Your task to perform on an android device: choose inbox layout in the gmail app Image 0: 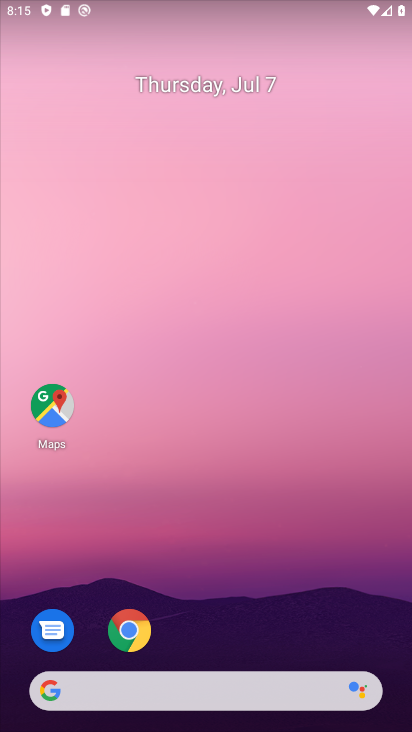
Step 0: drag from (200, 621) to (187, 149)
Your task to perform on an android device: choose inbox layout in the gmail app Image 1: 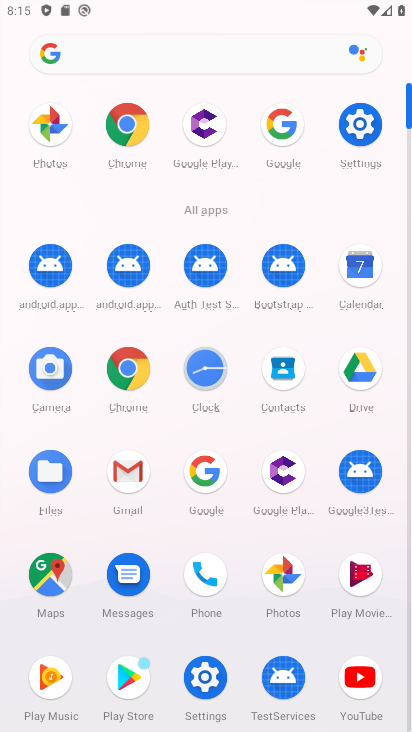
Step 1: click (137, 483)
Your task to perform on an android device: choose inbox layout in the gmail app Image 2: 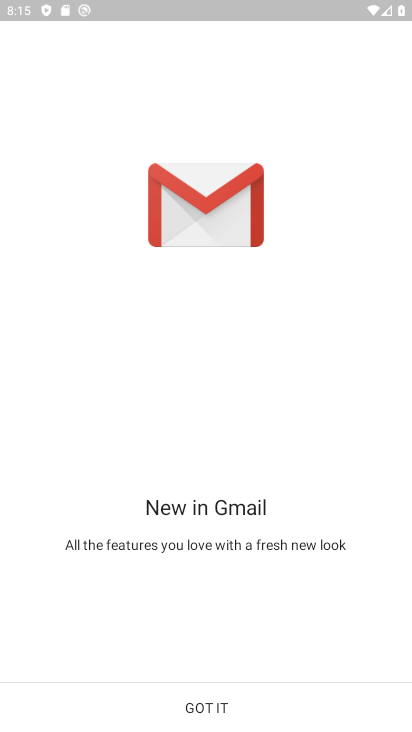
Step 2: click (212, 703)
Your task to perform on an android device: choose inbox layout in the gmail app Image 3: 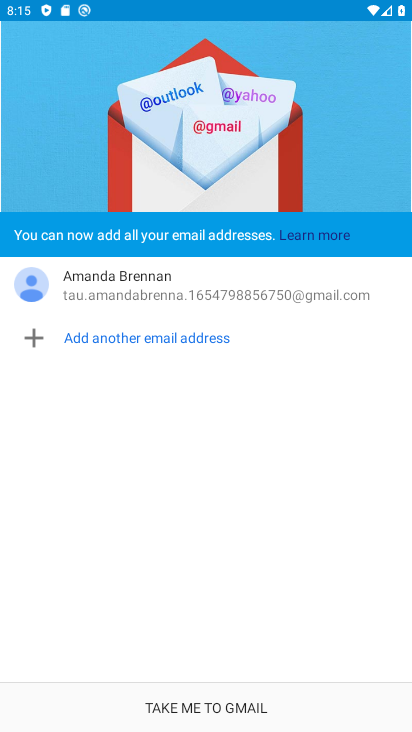
Step 3: click (242, 702)
Your task to perform on an android device: choose inbox layout in the gmail app Image 4: 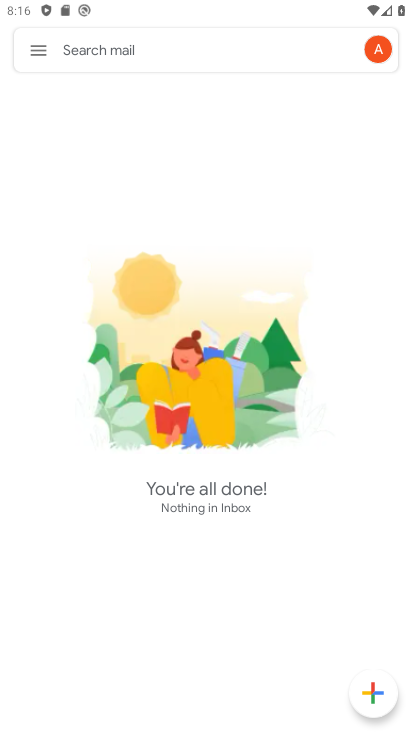
Step 4: click (30, 56)
Your task to perform on an android device: choose inbox layout in the gmail app Image 5: 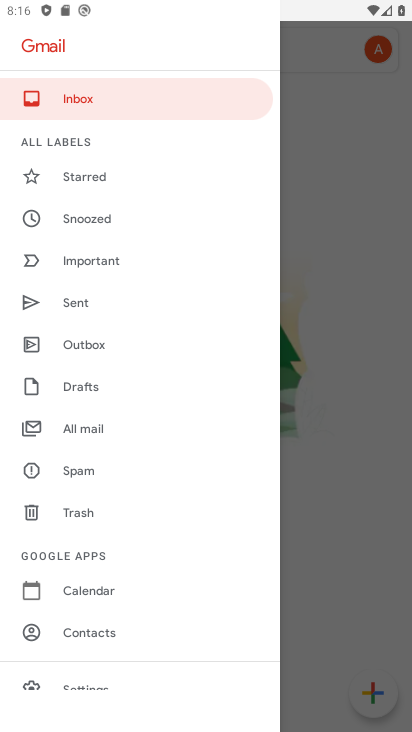
Step 5: drag from (132, 633) to (159, 294)
Your task to perform on an android device: choose inbox layout in the gmail app Image 6: 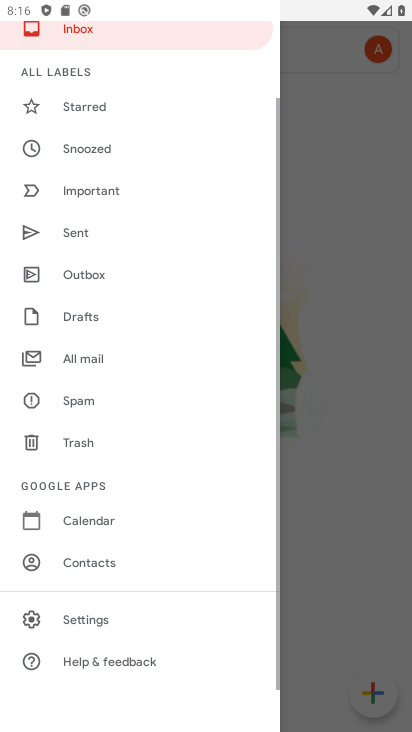
Step 6: click (90, 616)
Your task to perform on an android device: choose inbox layout in the gmail app Image 7: 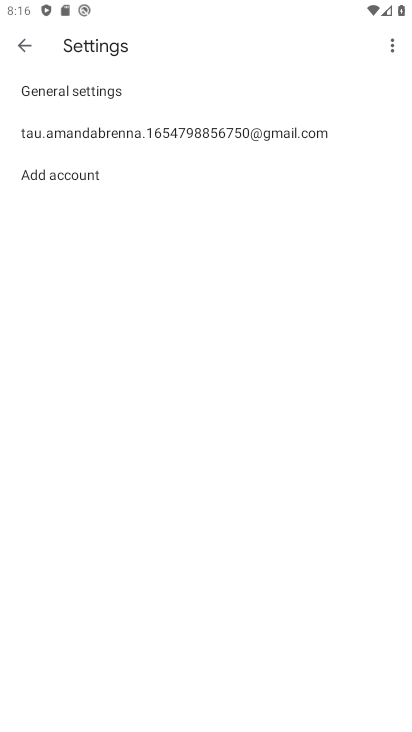
Step 7: click (150, 116)
Your task to perform on an android device: choose inbox layout in the gmail app Image 8: 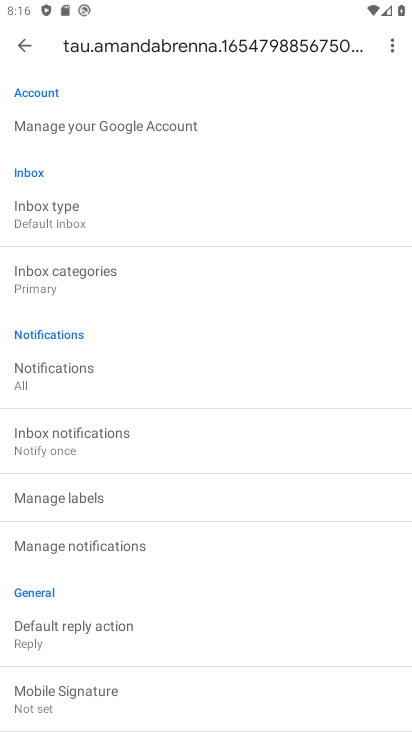
Step 8: click (108, 219)
Your task to perform on an android device: choose inbox layout in the gmail app Image 9: 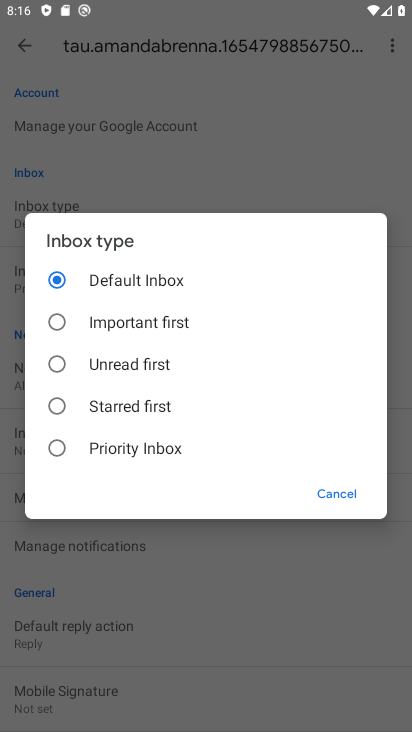
Step 9: click (115, 447)
Your task to perform on an android device: choose inbox layout in the gmail app Image 10: 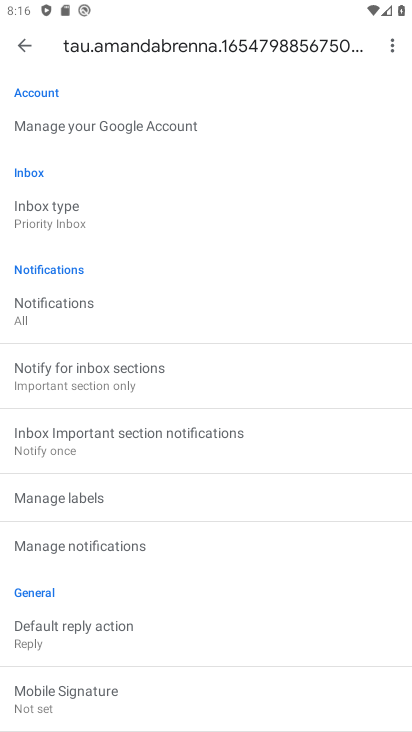
Step 10: task complete